Your task to perform on an android device: change the clock display to show seconds Image 0: 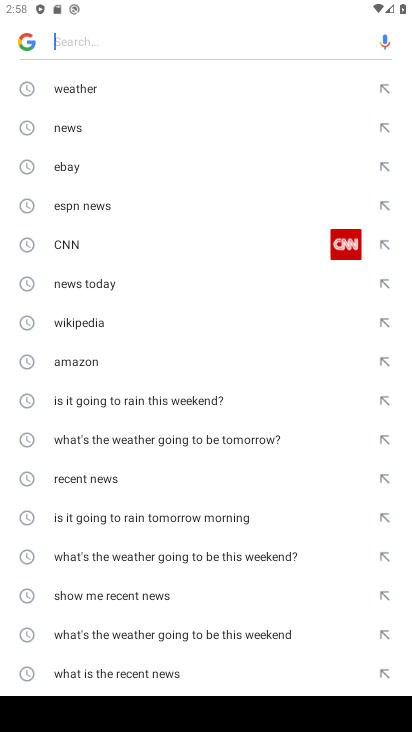
Step 0: press home button
Your task to perform on an android device: change the clock display to show seconds Image 1: 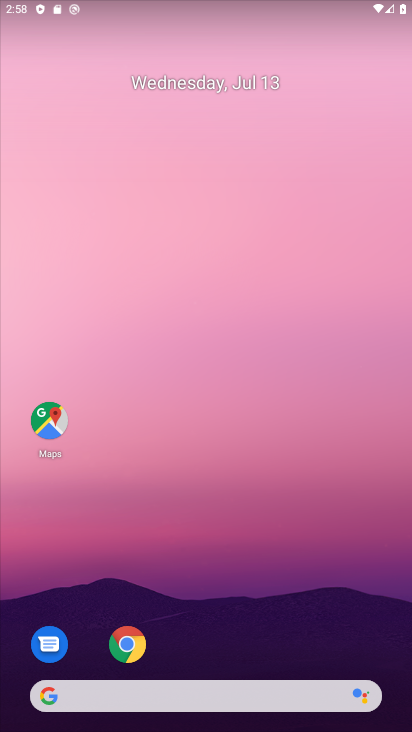
Step 1: drag from (185, 689) to (219, 210)
Your task to perform on an android device: change the clock display to show seconds Image 2: 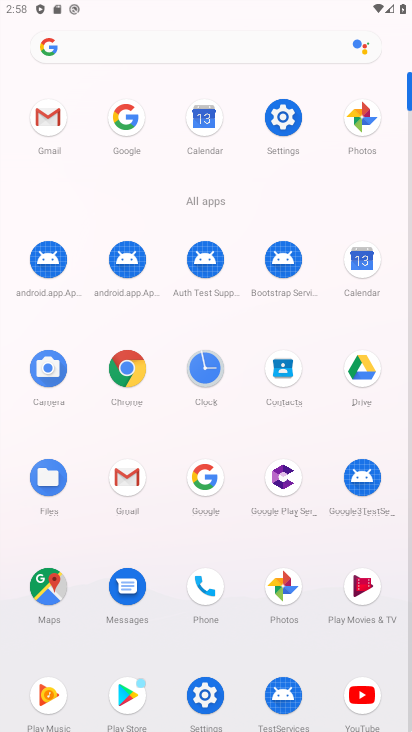
Step 2: click (205, 369)
Your task to perform on an android device: change the clock display to show seconds Image 3: 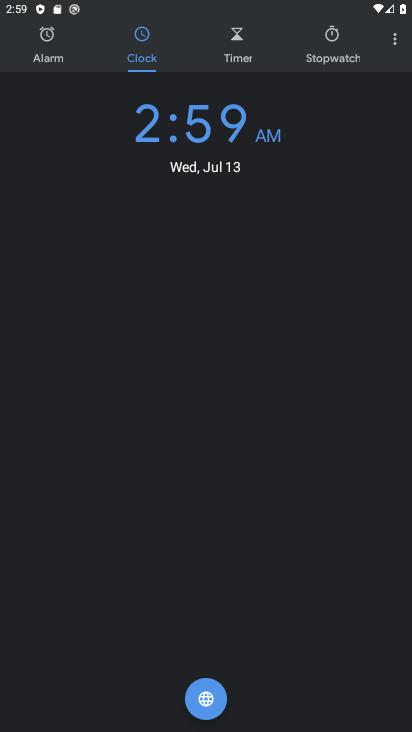
Step 3: click (397, 41)
Your task to perform on an android device: change the clock display to show seconds Image 4: 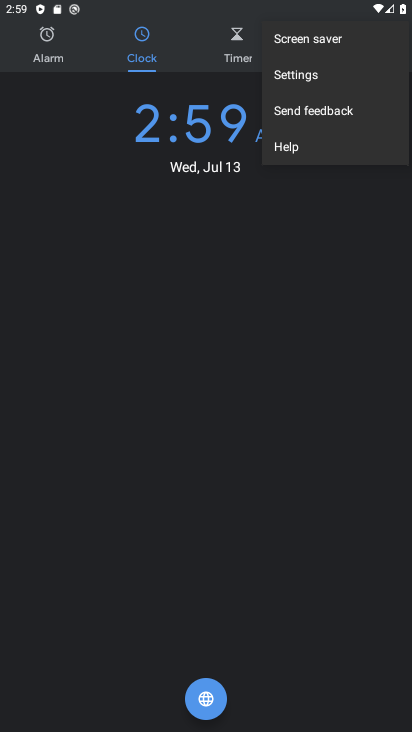
Step 4: click (303, 77)
Your task to perform on an android device: change the clock display to show seconds Image 5: 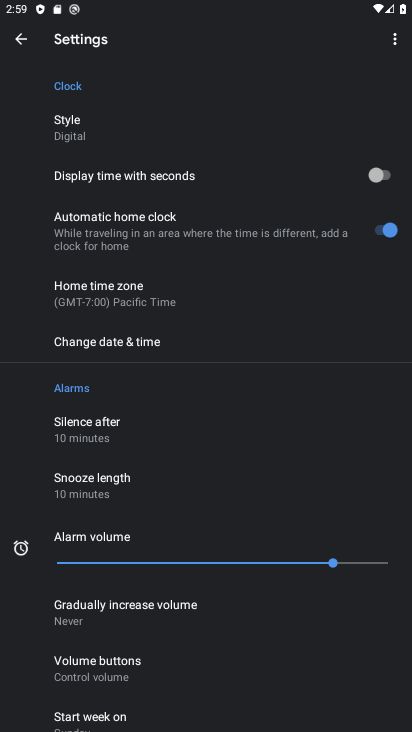
Step 5: click (376, 173)
Your task to perform on an android device: change the clock display to show seconds Image 6: 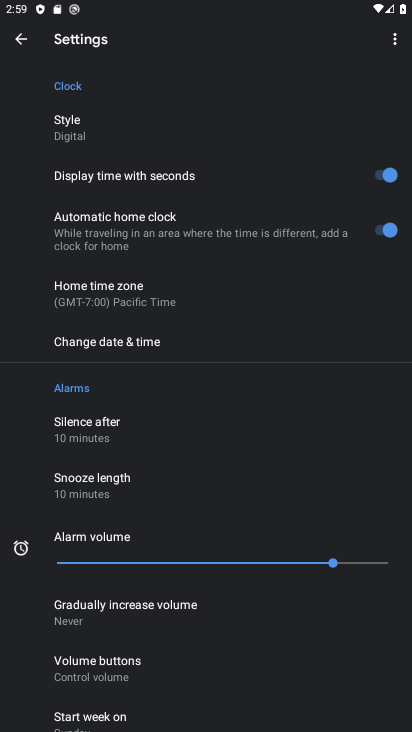
Step 6: task complete